Your task to perform on an android device: read, delete, or share a saved page in the chrome app Image 0: 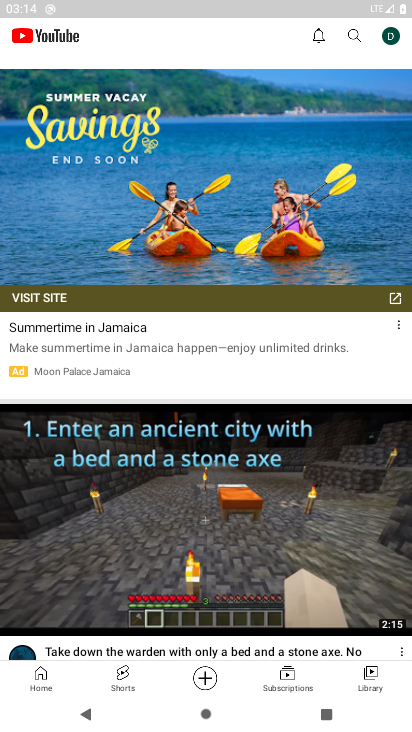
Step 0: press home button
Your task to perform on an android device: read, delete, or share a saved page in the chrome app Image 1: 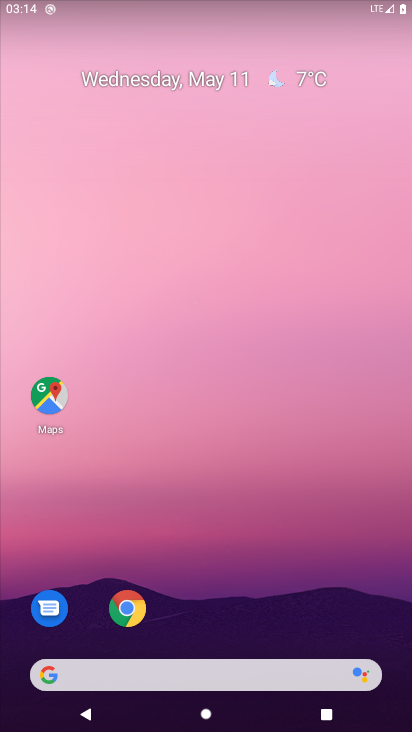
Step 1: click (128, 609)
Your task to perform on an android device: read, delete, or share a saved page in the chrome app Image 2: 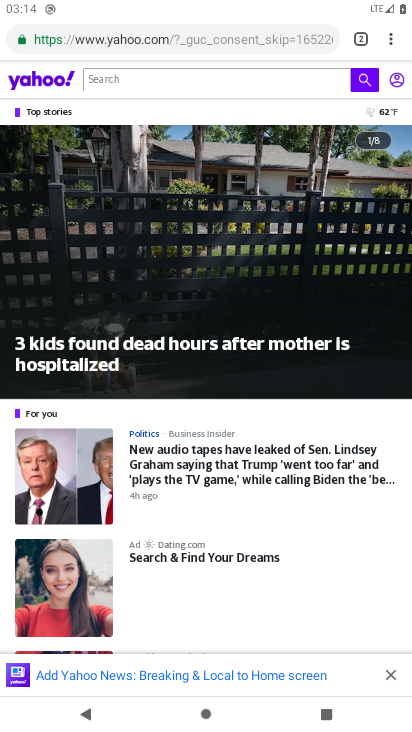
Step 2: click (392, 34)
Your task to perform on an android device: read, delete, or share a saved page in the chrome app Image 3: 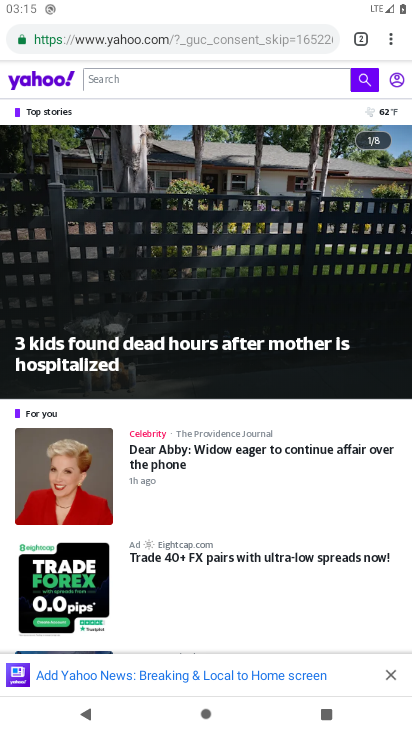
Step 3: click (392, 34)
Your task to perform on an android device: read, delete, or share a saved page in the chrome app Image 4: 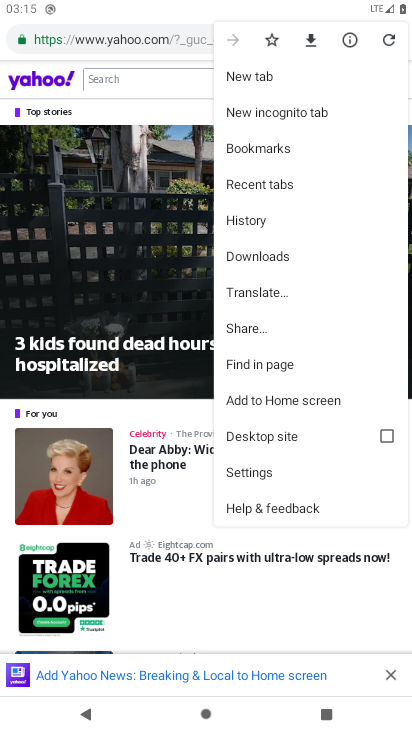
Step 4: click (275, 253)
Your task to perform on an android device: read, delete, or share a saved page in the chrome app Image 5: 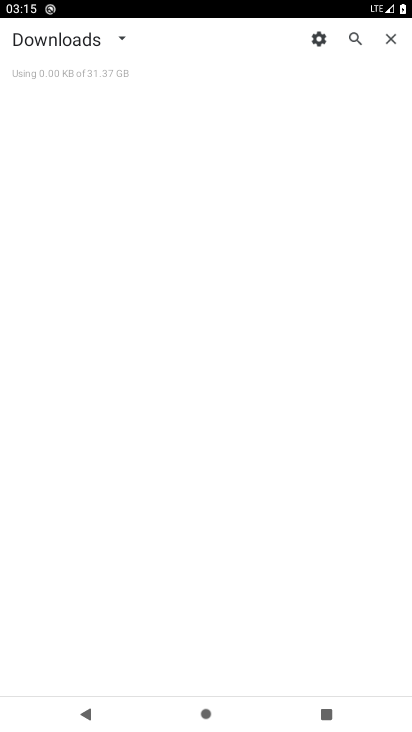
Step 5: task complete